Your task to perform on an android device: toggle translation in the chrome app Image 0: 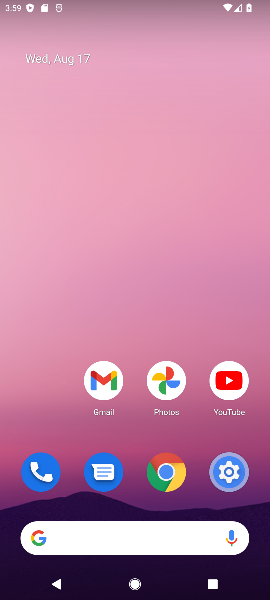
Step 0: click (164, 463)
Your task to perform on an android device: toggle translation in the chrome app Image 1: 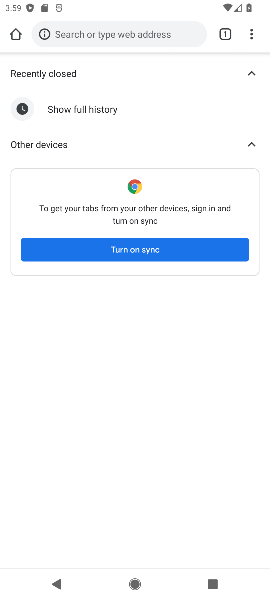
Step 1: click (254, 32)
Your task to perform on an android device: toggle translation in the chrome app Image 2: 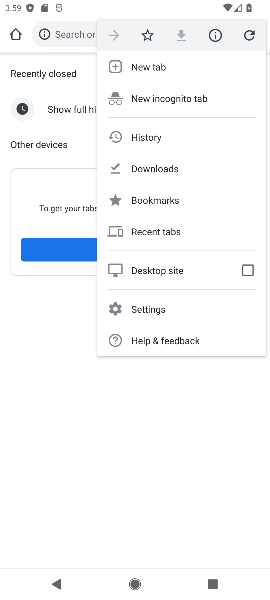
Step 2: click (146, 307)
Your task to perform on an android device: toggle translation in the chrome app Image 3: 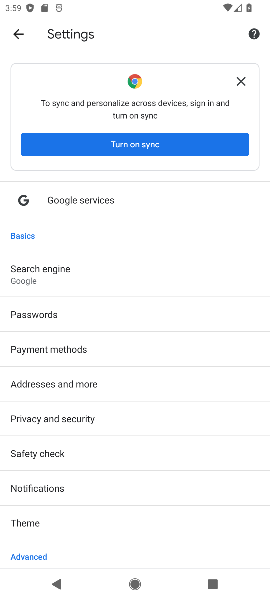
Step 3: drag from (83, 502) to (107, 245)
Your task to perform on an android device: toggle translation in the chrome app Image 4: 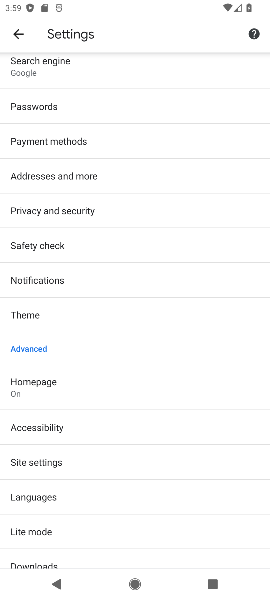
Step 4: click (77, 495)
Your task to perform on an android device: toggle translation in the chrome app Image 5: 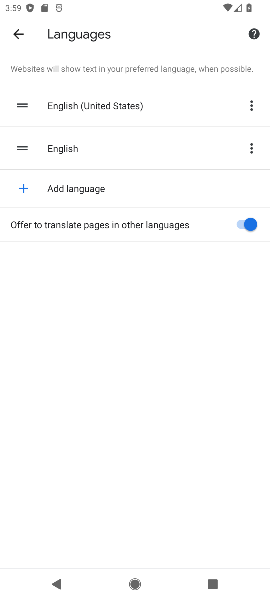
Step 5: click (237, 227)
Your task to perform on an android device: toggle translation in the chrome app Image 6: 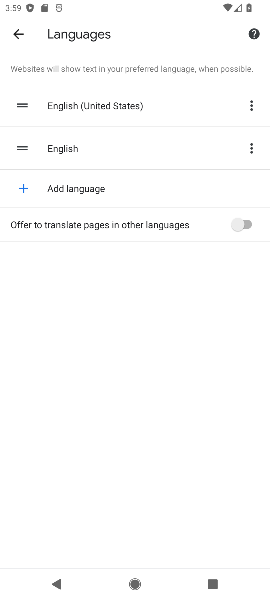
Step 6: task complete